Your task to perform on an android device: Turn on the flashlight Image 0: 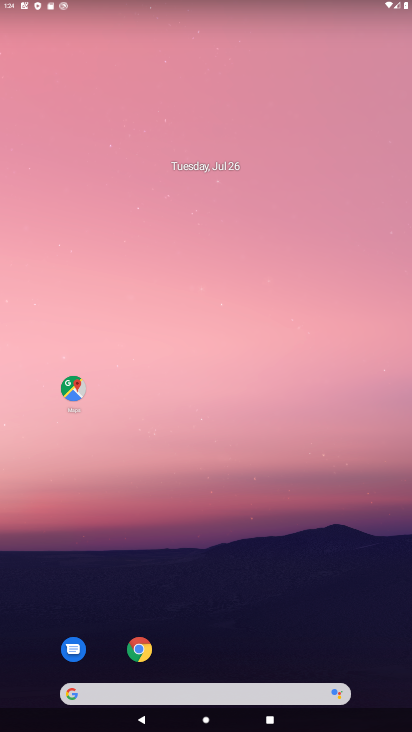
Step 0: drag from (234, 651) to (266, 1)
Your task to perform on an android device: Turn on the flashlight Image 1: 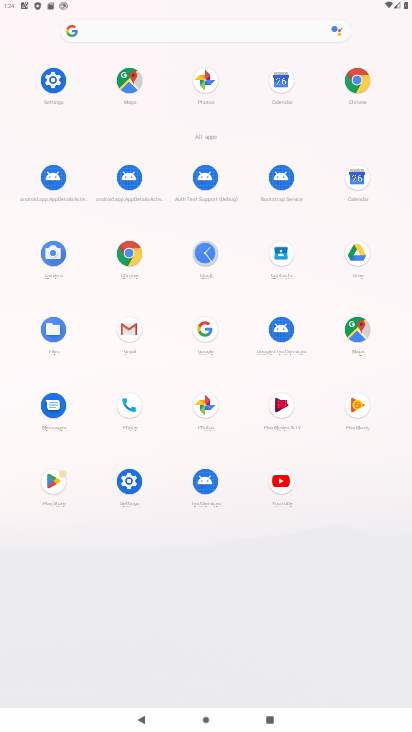
Step 1: click (48, 82)
Your task to perform on an android device: Turn on the flashlight Image 2: 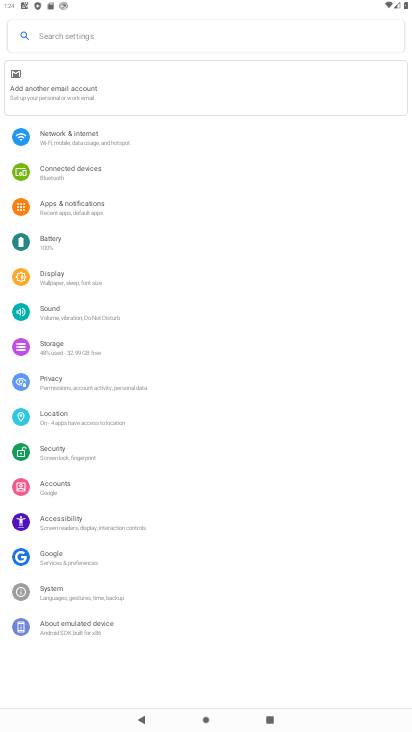
Step 2: click (91, 28)
Your task to perform on an android device: Turn on the flashlight Image 3: 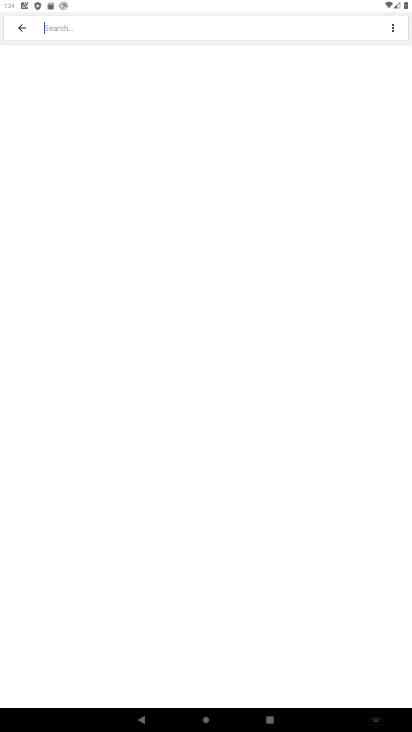
Step 3: type "flashlight"
Your task to perform on an android device: Turn on the flashlight Image 4: 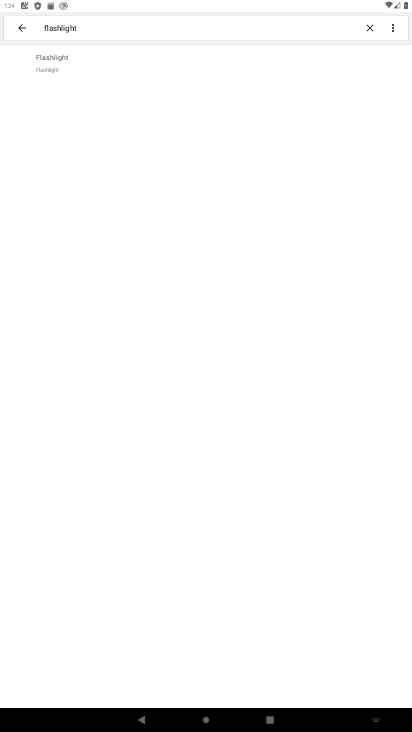
Step 4: click (91, 67)
Your task to perform on an android device: Turn on the flashlight Image 5: 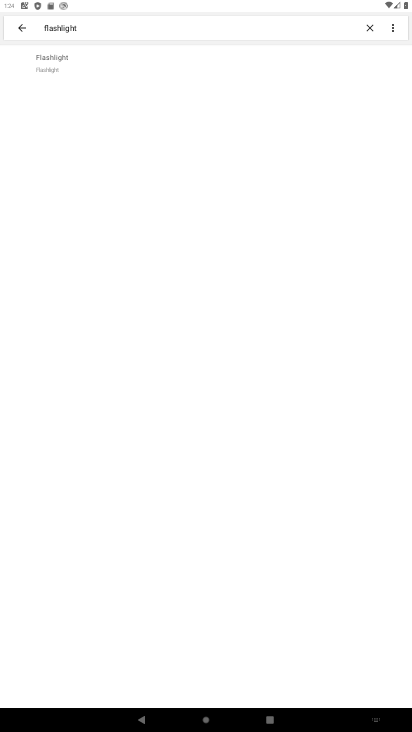
Step 5: task complete